Your task to perform on an android device: Go to wifi settings Image 0: 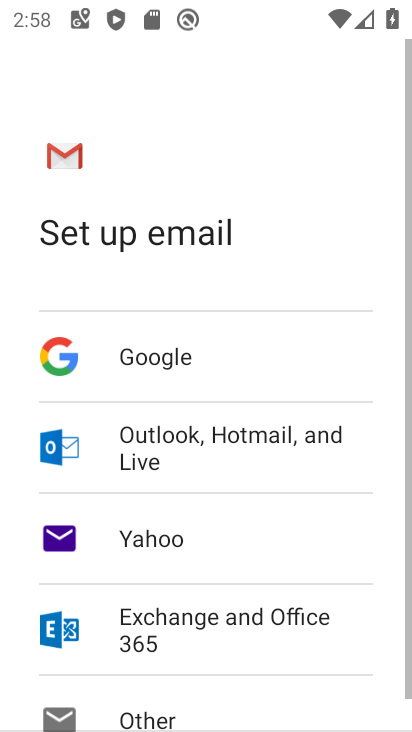
Step 0: press back button
Your task to perform on an android device: Go to wifi settings Image 1: 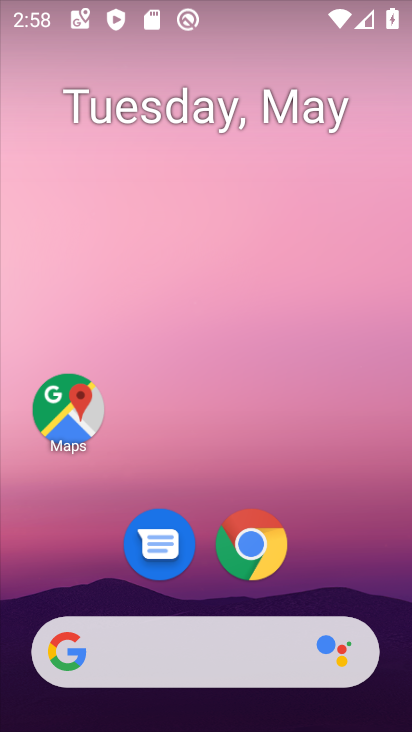
Step 1: drag from (322, 539) to (240, 119)
Your task to perform on an android device: Go to wifi settings Image 2: 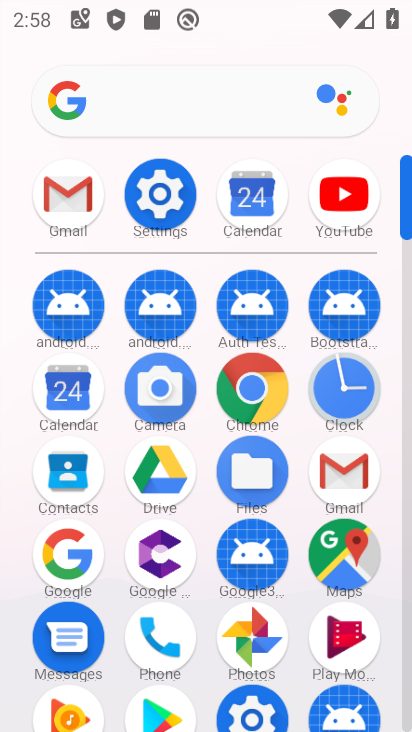
Step 2: click (162, 193)
Your task to perform on an android device: Go to wifi settings Image 3: 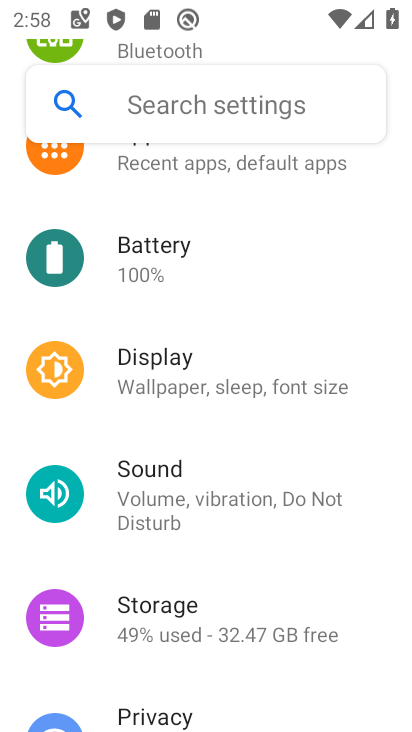
Step 3: drag from (208, 225) to (207, 315)
Your task to perform on an android device: Go to wifi settings Image 4: 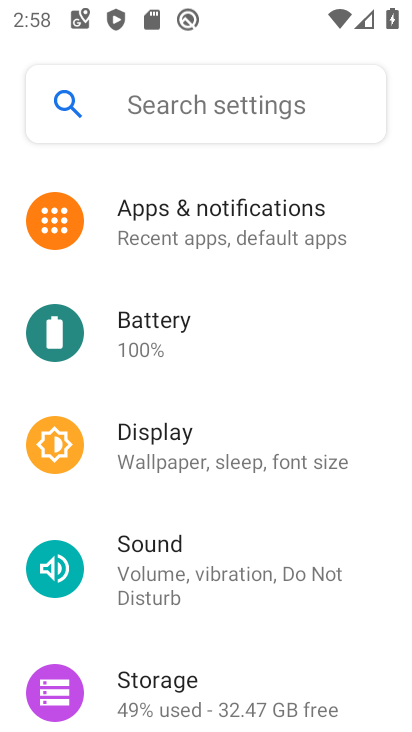
Step 4: drag from (196, 170) to (200, 286)
Your task to perform on an android device: Go to wifi settings Image 5: 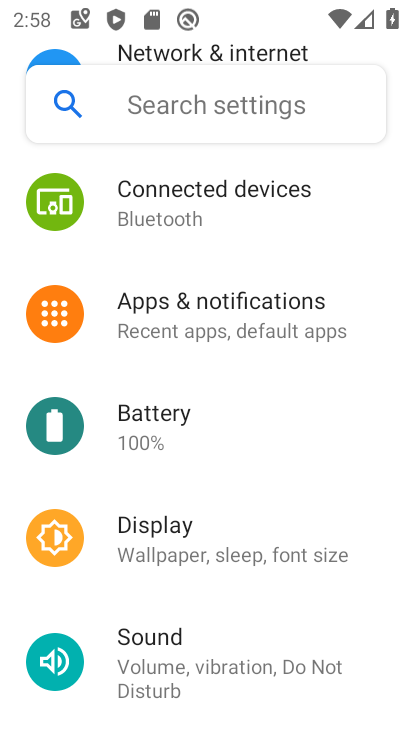
Step 5: drag from (215, 233) to (215, 374)
Your task to perform on an android device: Go to wifi settings Image 6: 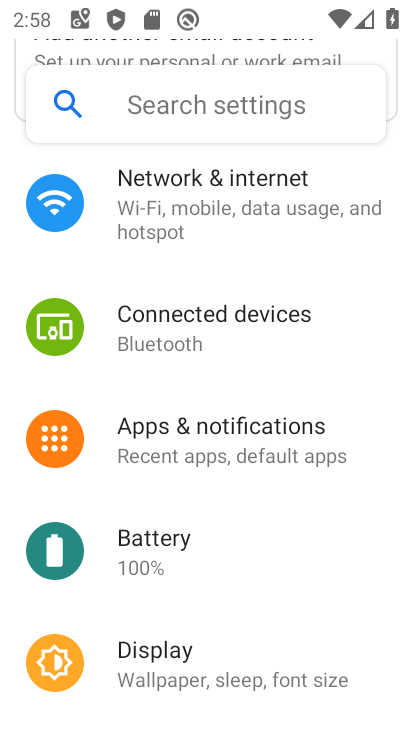
Step 6: drag from (217, 242) to (251, 376)
Your task to perform on an android device: Go to wifi settings Image 7: 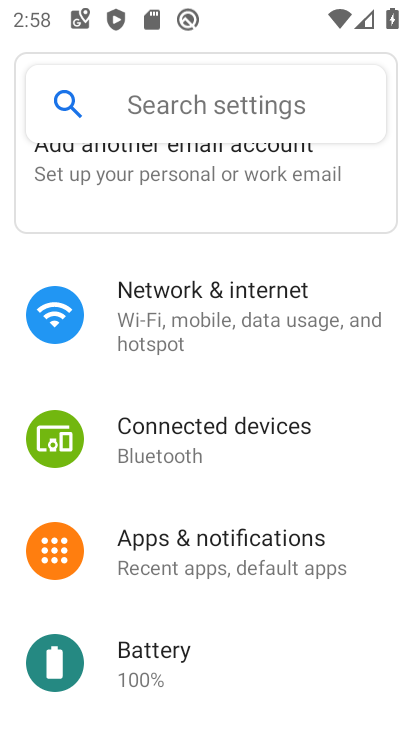
Step 7: click (217, 287)
Your task to perform on an android device: Go to wifi settings Image 8: 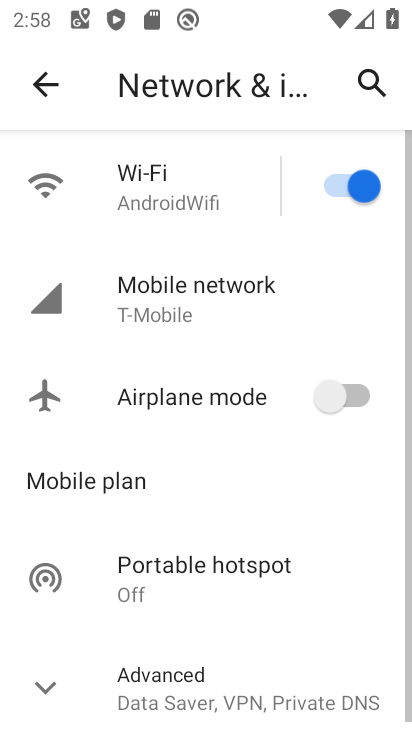
Step 8: click (151, 179)
Your task to perform on an android device: Go to wifi settings Image 9: 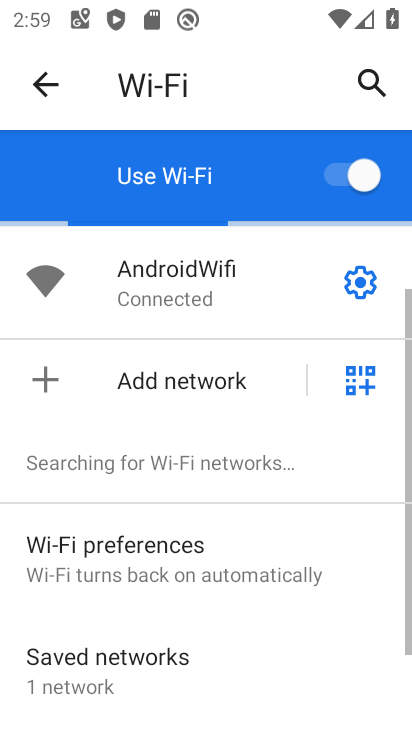
Step 9: click (355, 285)
Your task to perform on an android device: Go to wifi settings Image 10: 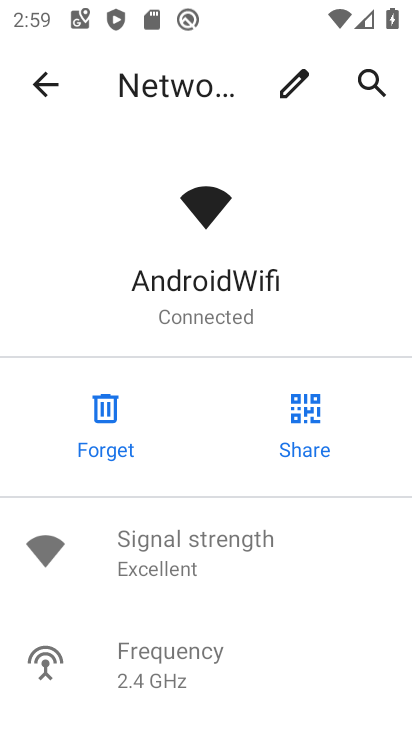
Step 10: task complete